Your task to perform on an android device: Open Google Image 0: 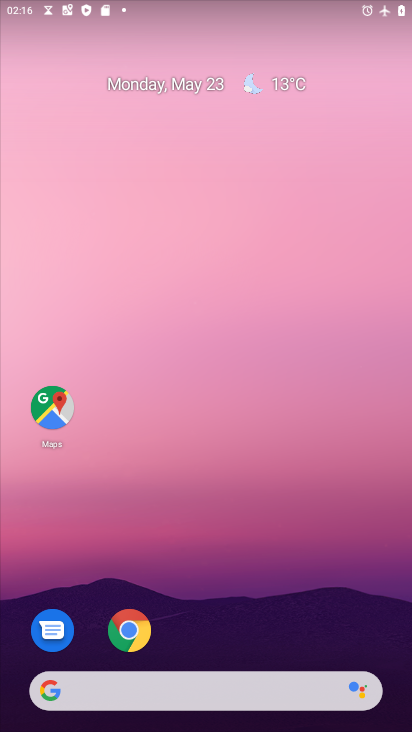
Step 0: drag from (323, 583) to (122, 37)
Your task to perform on an android device: Open Google Image 1: 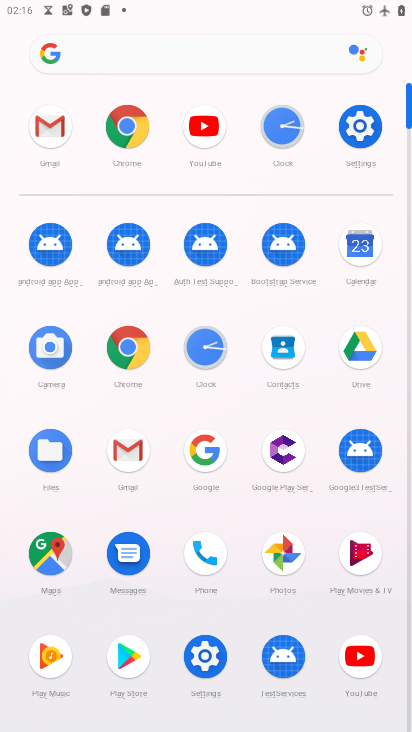
Step 1: click (215, 456)
Your task to perform on an android device: Open Google Image 2: 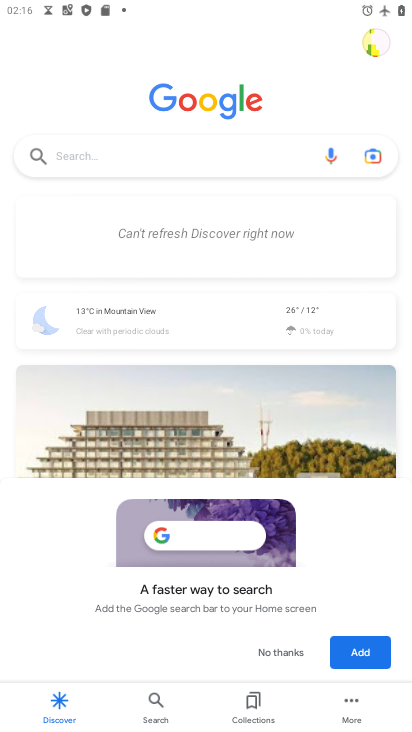
Step 2: task complete